Your task to perform on an android device: Go to battery settings Image 0: 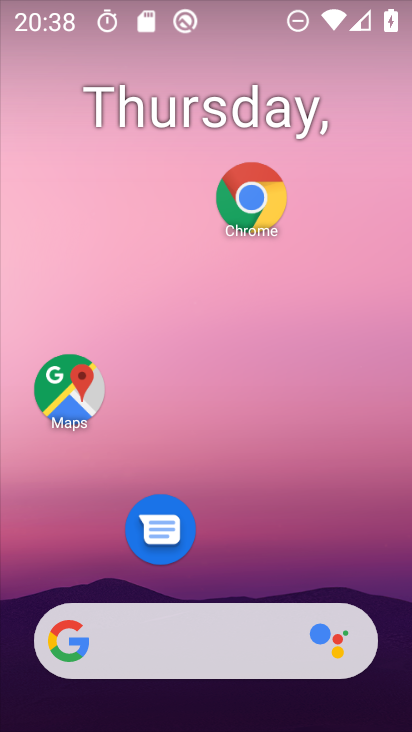
Step 0: drag from (232, 520) to (183, 66)
Your task to perform on an android device: Go to battery settings Image 1: 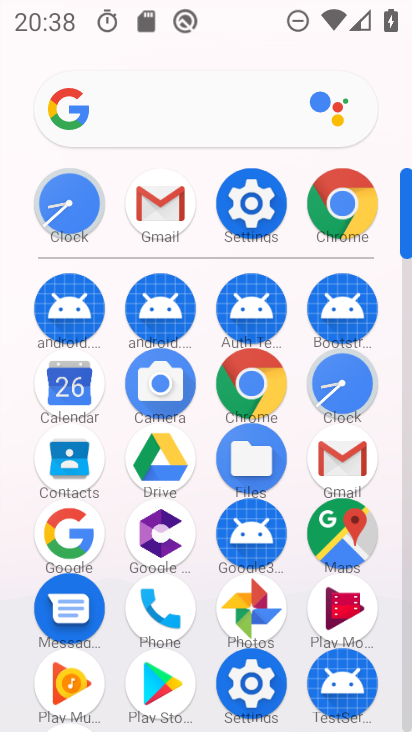
Step 1: click (246, 211)
Your task to perform on an android device: Go to battery settings Image 2: 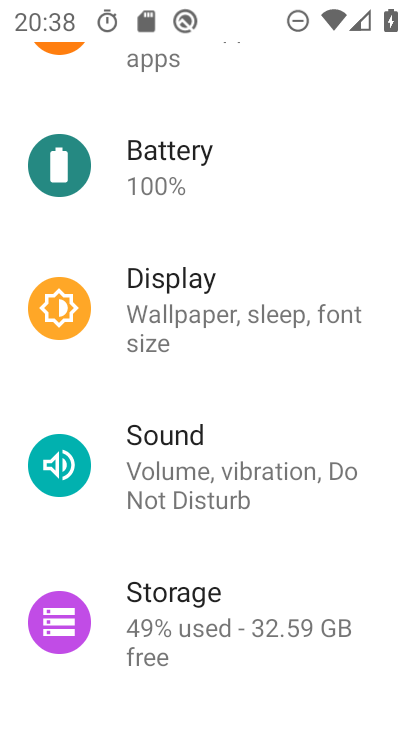
Step 2: click (182, 184)
Your task to perform on an android device: Go to battery settings Image 3: 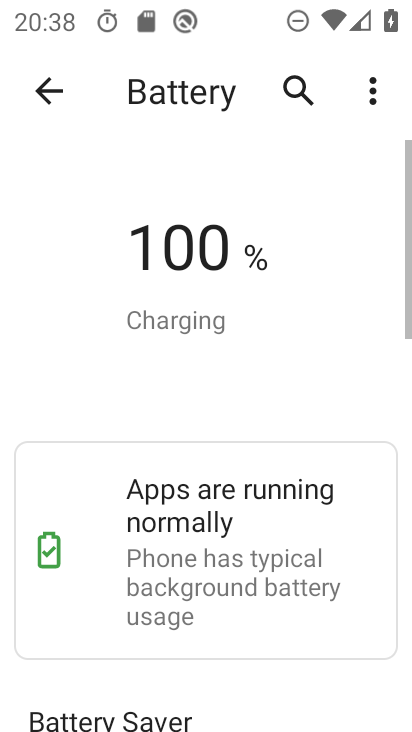
Step 3: task complete